Your task to perform on an android device: toggle translation in the chrome app Image 0: 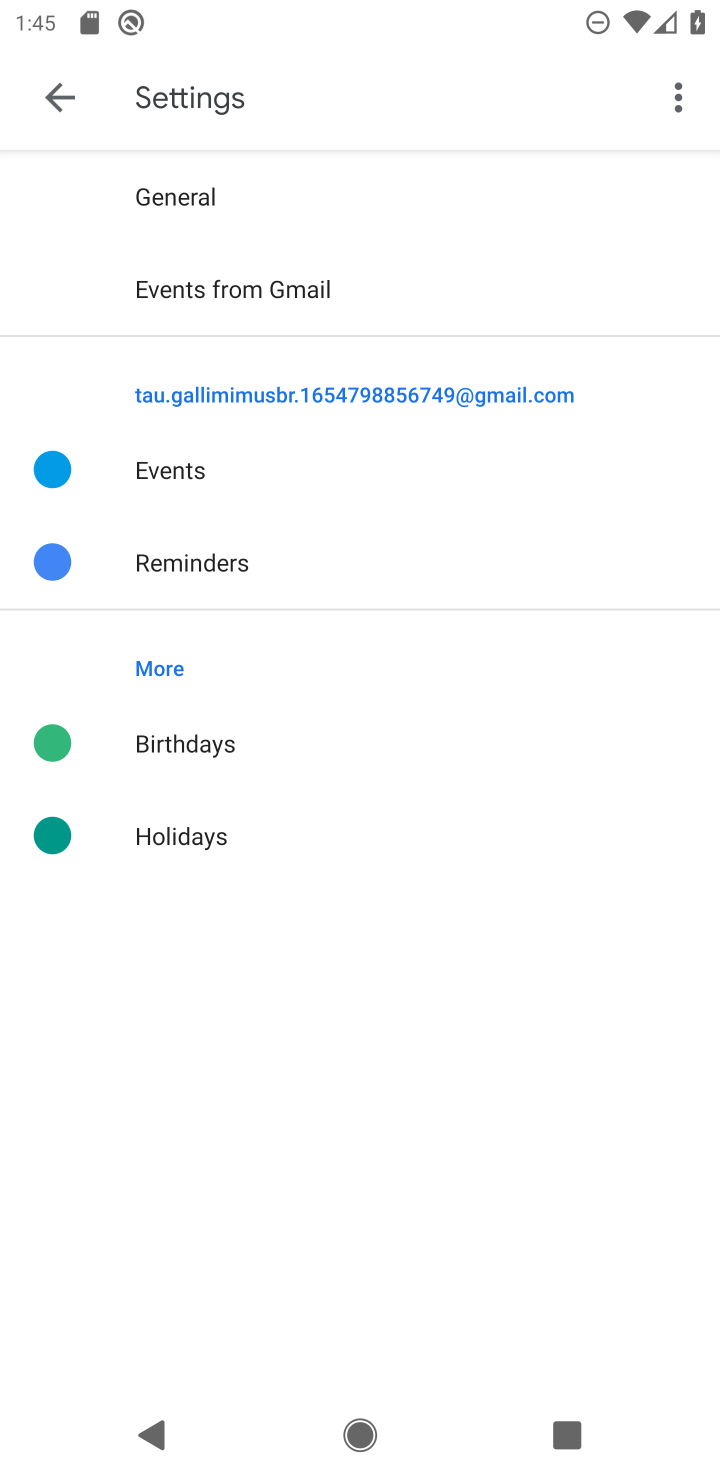
Step 0: press home button
Your task to perform on an android device: toggle translation in the chrome app Image 1: 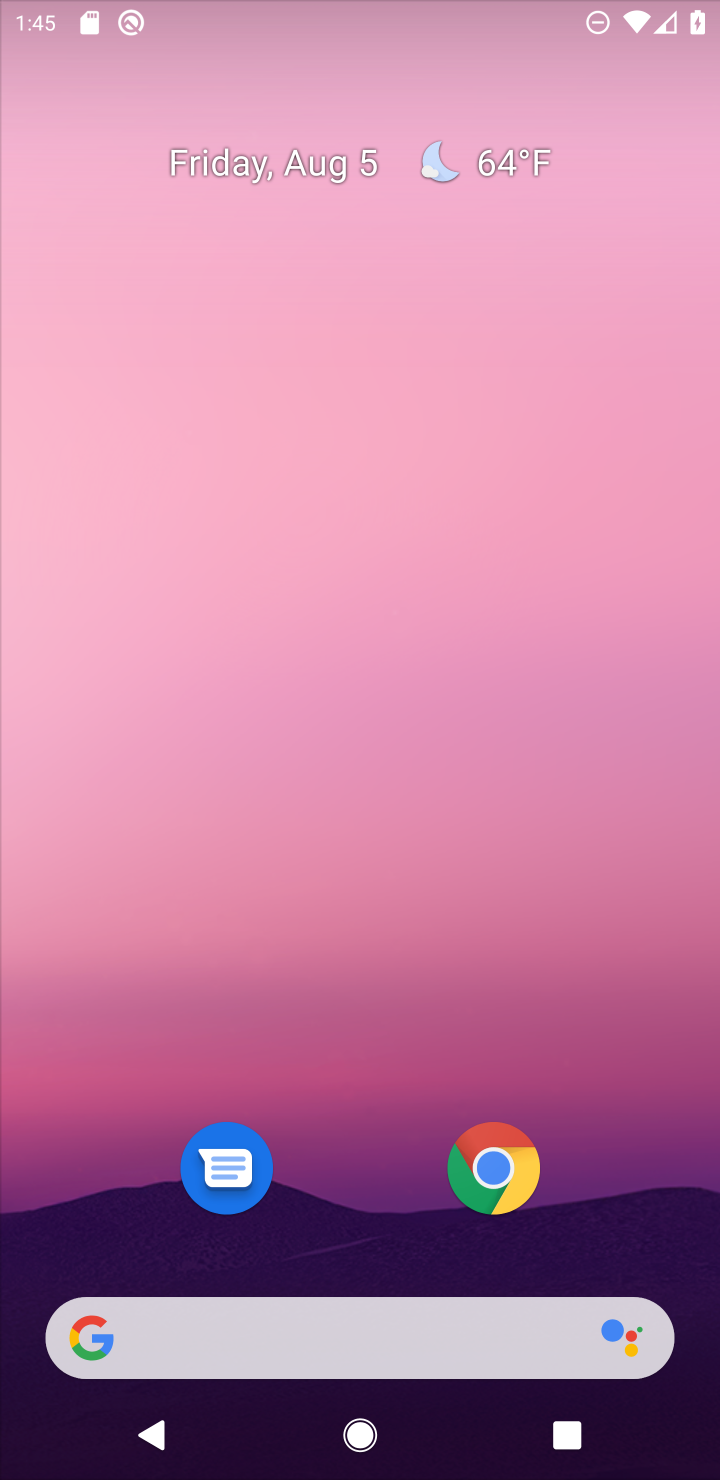
Step 1: drag from (637, 1242) to (443, 85)
Your task to perform on an android device: toggle translation in the chrome app Image 2: 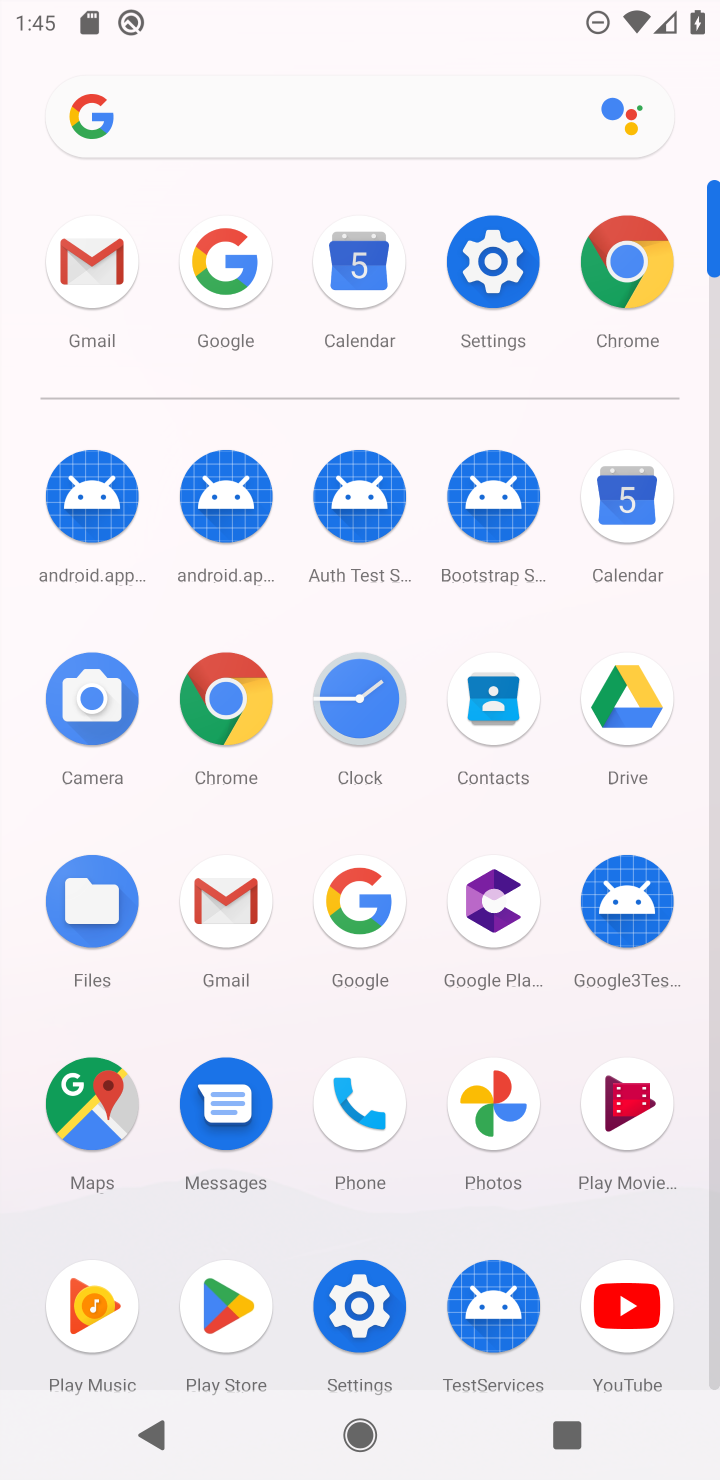
Step 2: click (225, 684)
Your task to perform on an android device: toggle translation in the chrome app Image 3: 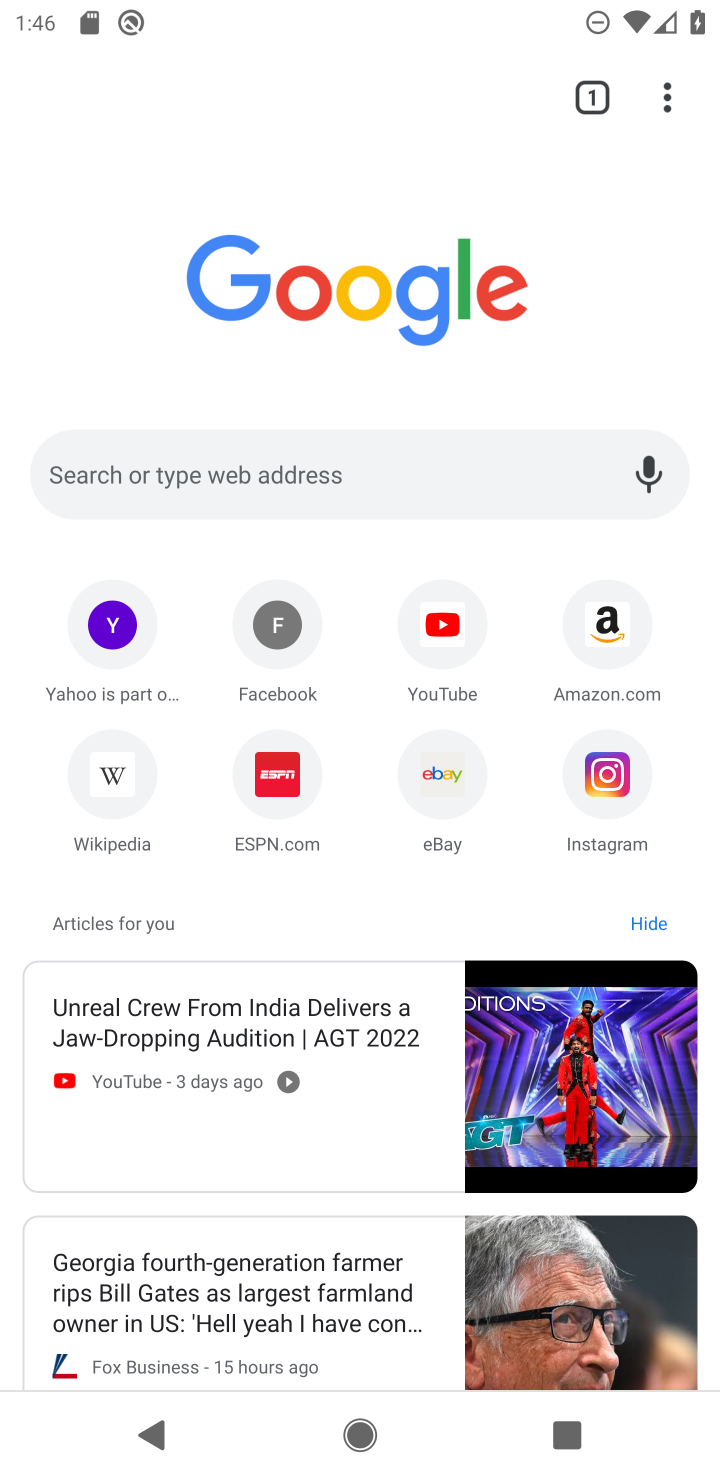
Step 3: click (675, 83)
Your task to perform on an android device: toggle translation in the chrome app Image 4: 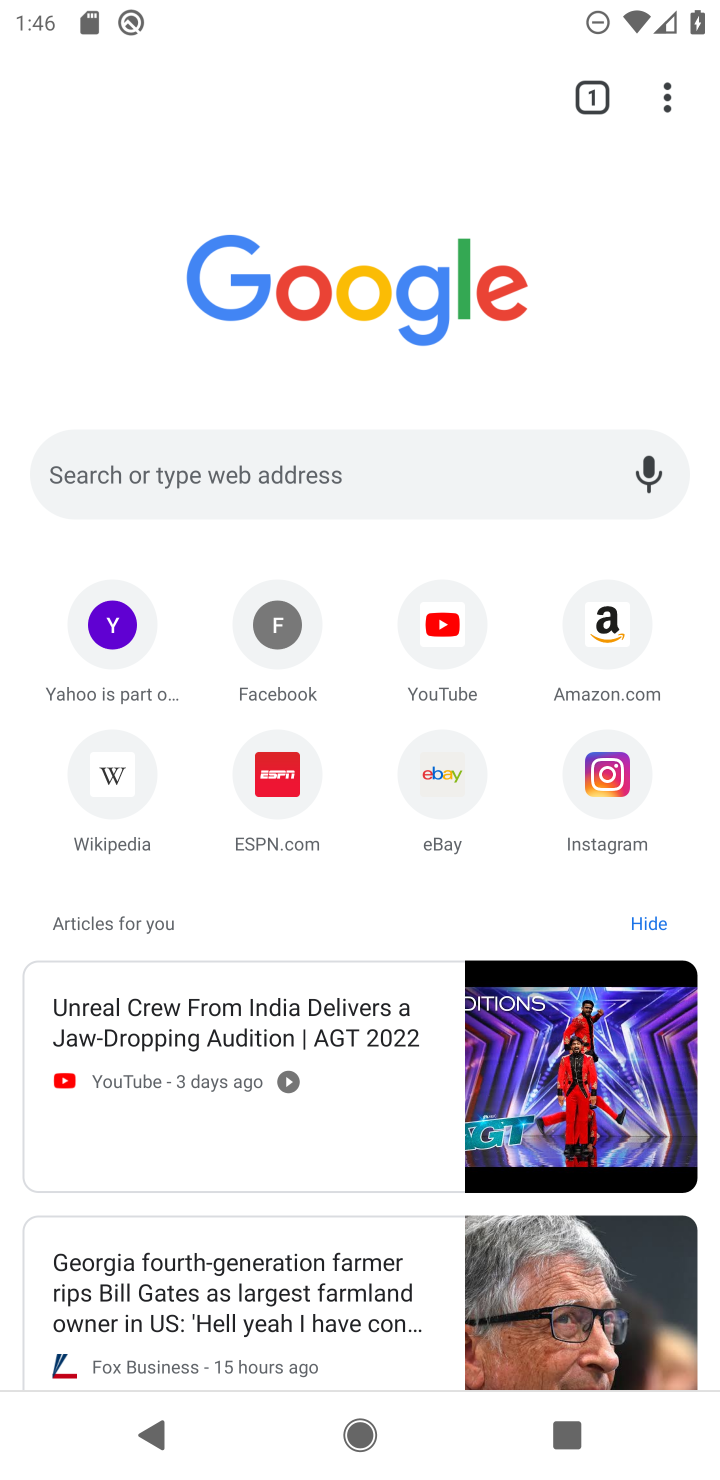
Step 4: click (663, 94)
Your task to perform on an android device: toggle translation in the chrome app Image 5: 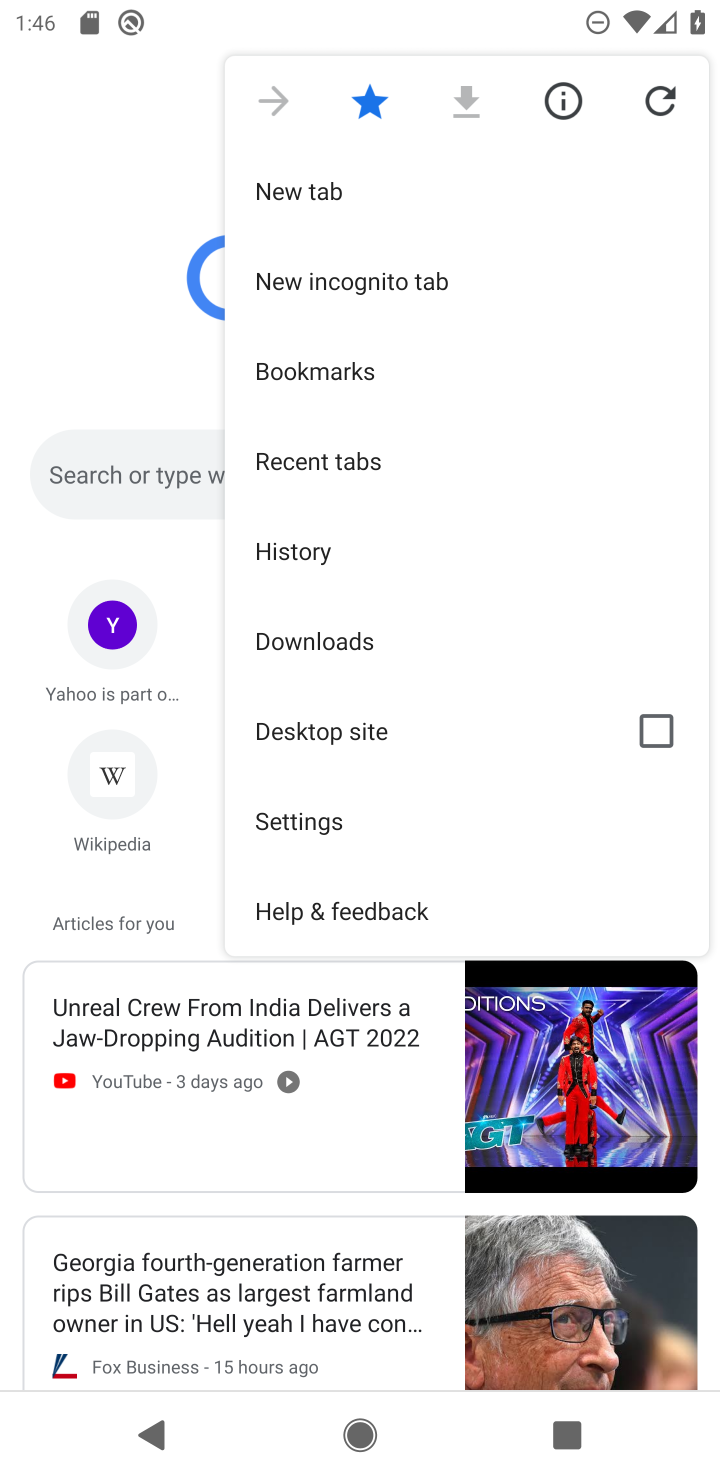
Step 5: click (290, 822)
Your task to perform on an android device: toggle translation in the chrome app Image 6: 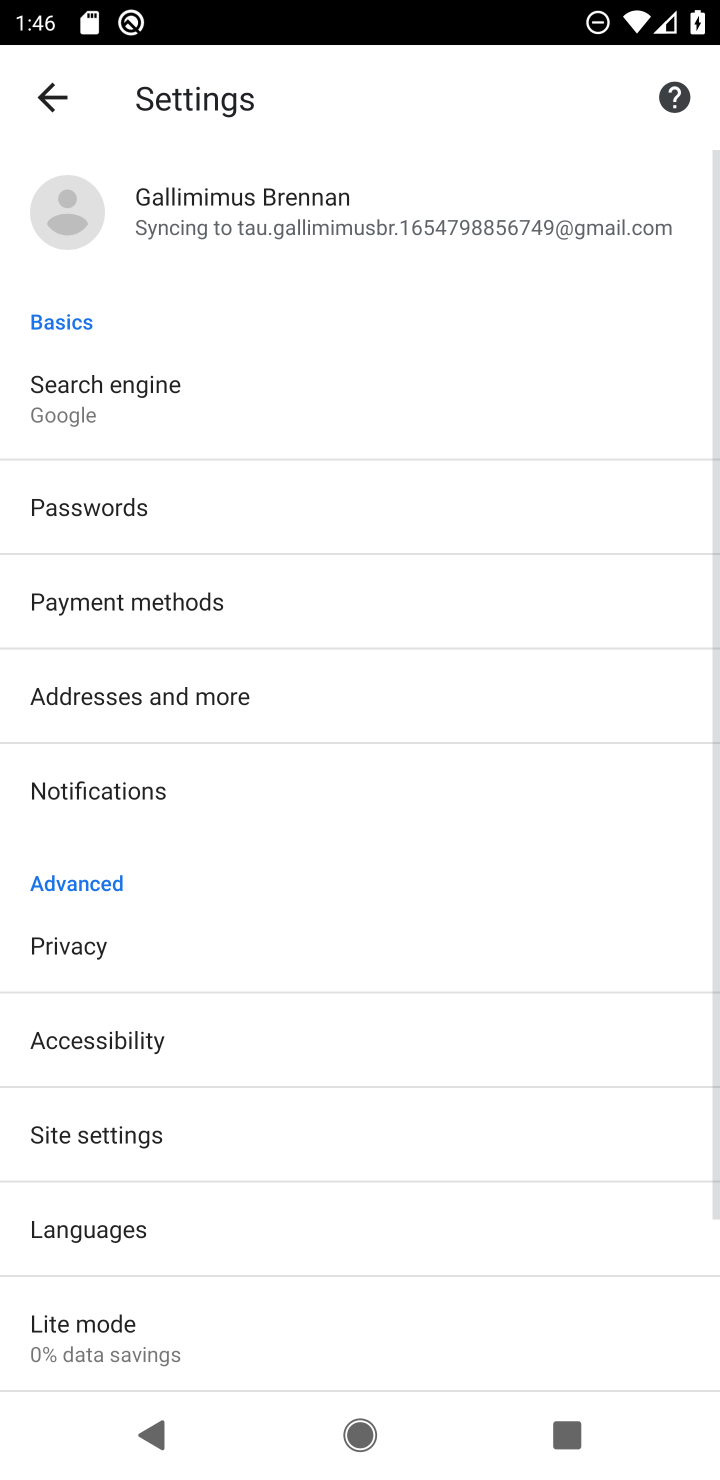
Step 6: drag from (154, 1320) to (276, 360)
Your task to perform on an android device: toggle translation in the chrome app Image 7: 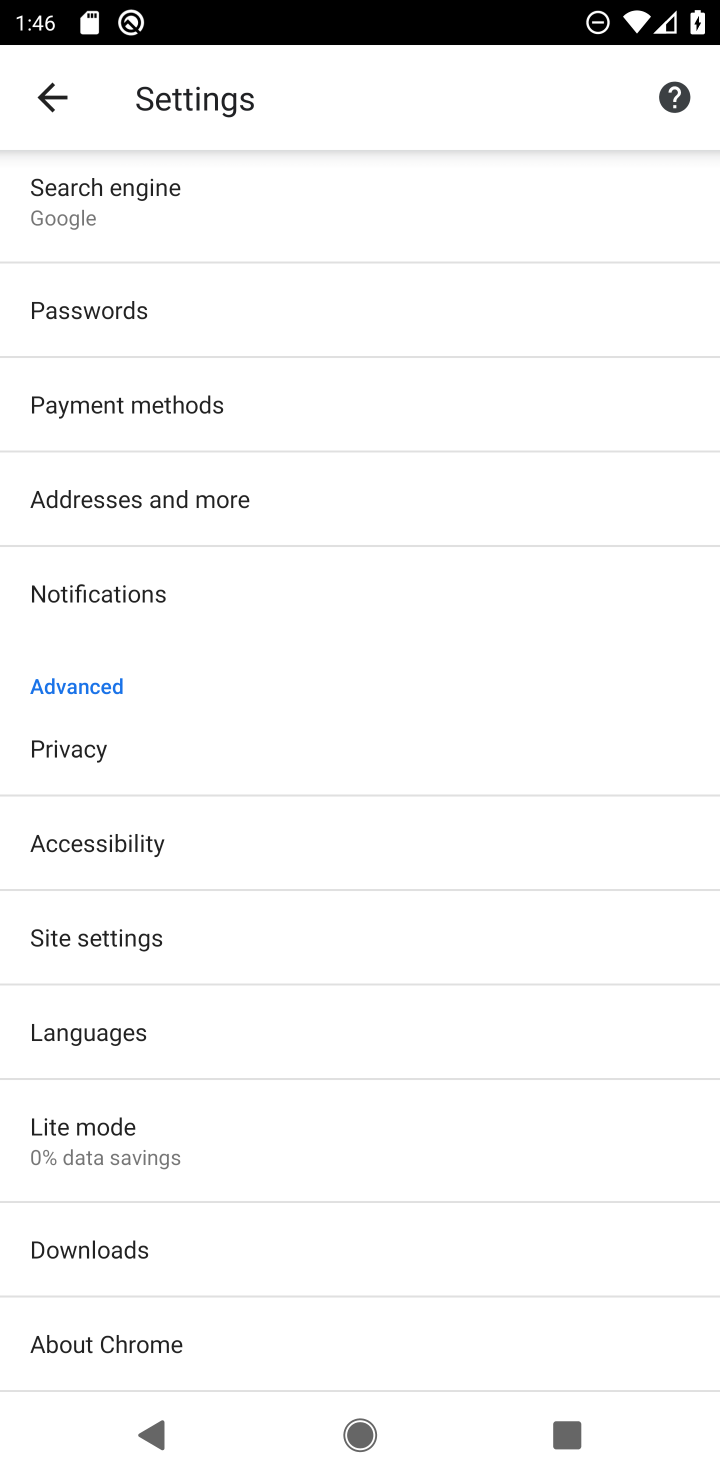
Step 7: click (152, 1015)
Your task to perform on an android device: toggle translation in the chrome app Image 8: 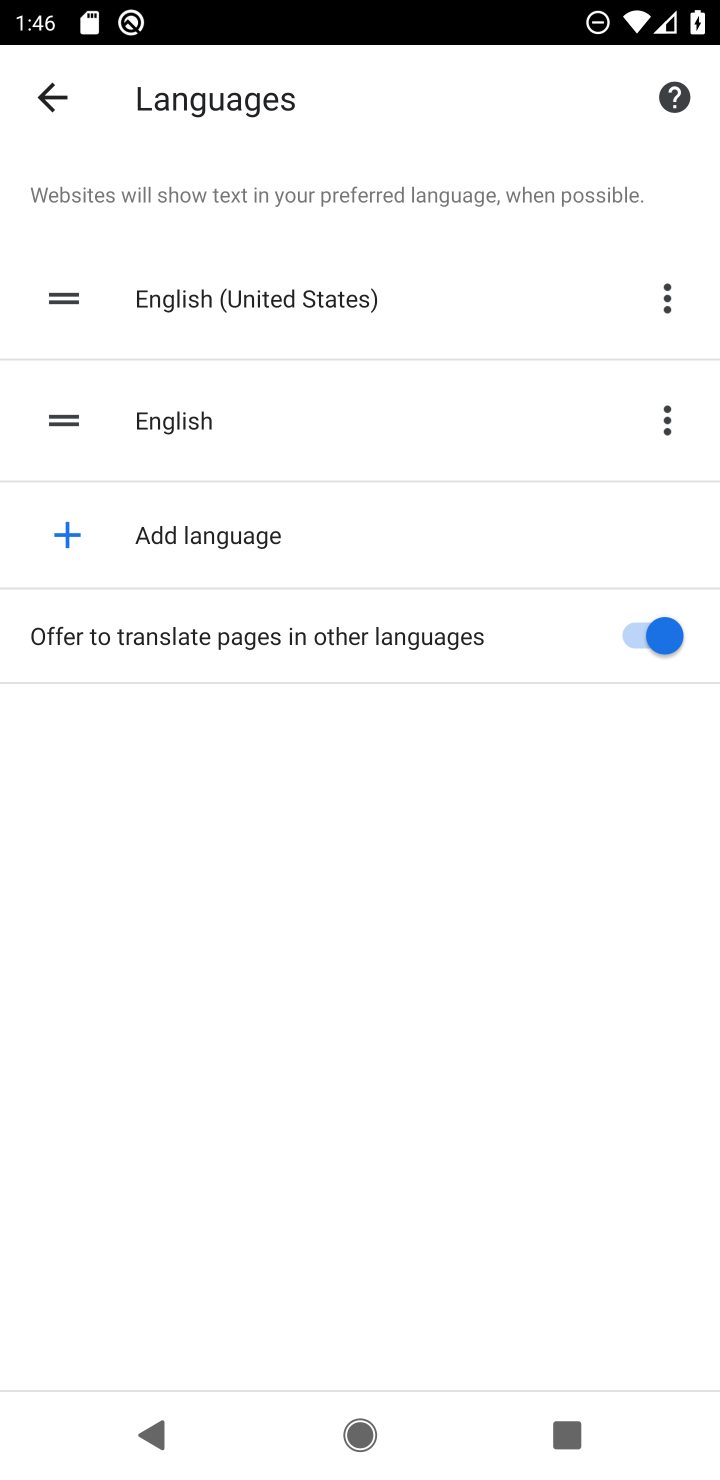
Step 8: click (502, 641)
Your task to perform on an android device: toggle translation in the chrome app Image 9: 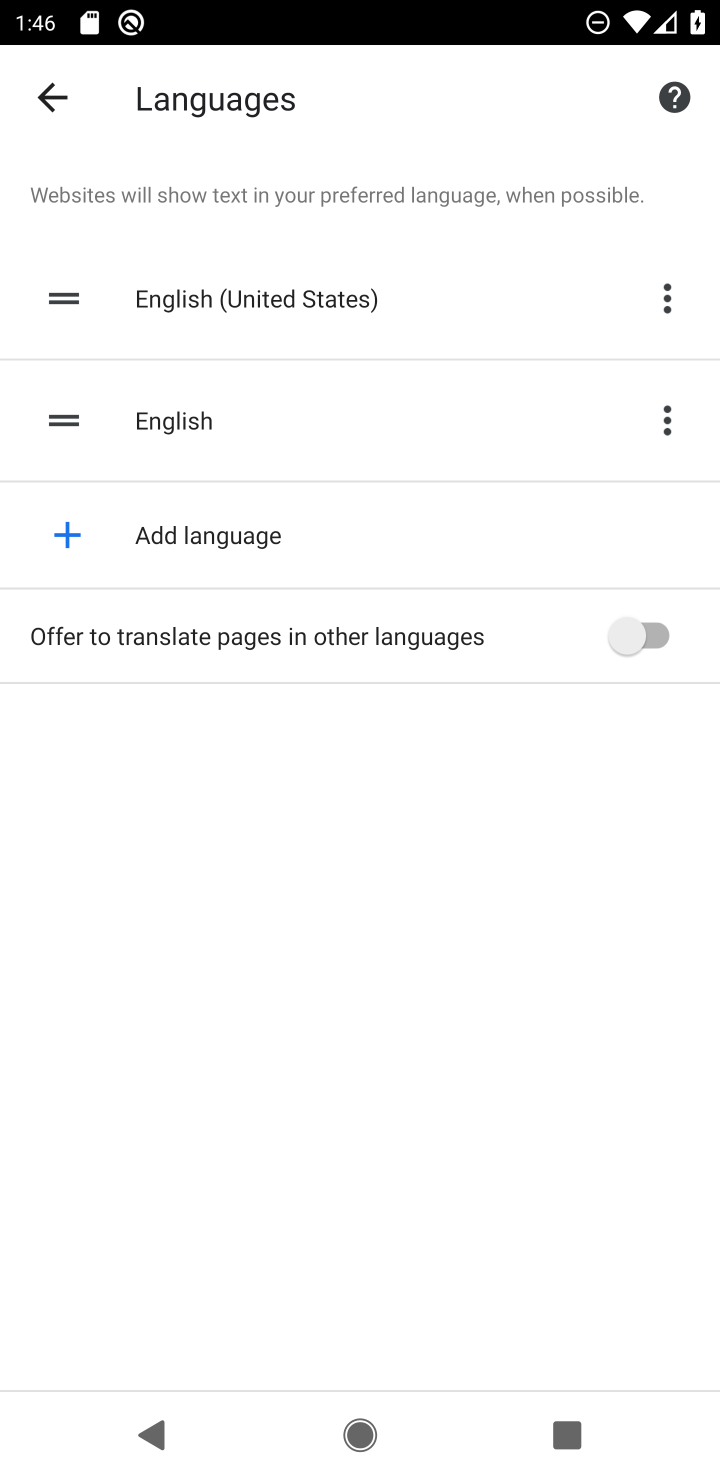
Step 9: task complete